Your task to perform on an android device: turn off improve location accuracy Image 0: 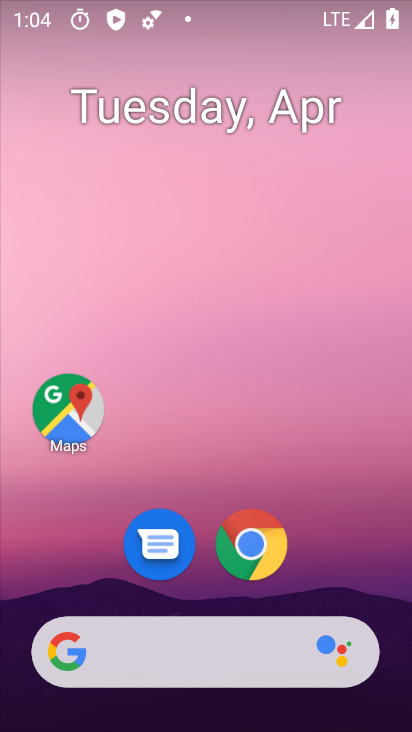
Step 0: drag from (363, 544) to (363, 56)
Your task to perform on an android device: turn off improve location accuracy Image 1: 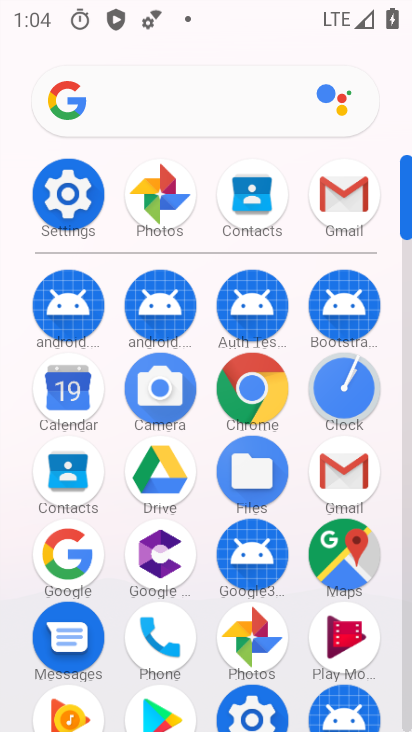
Step 1: click (71, 172)
Your task to perform on an android device: turn off improve location accuracy Image 2: 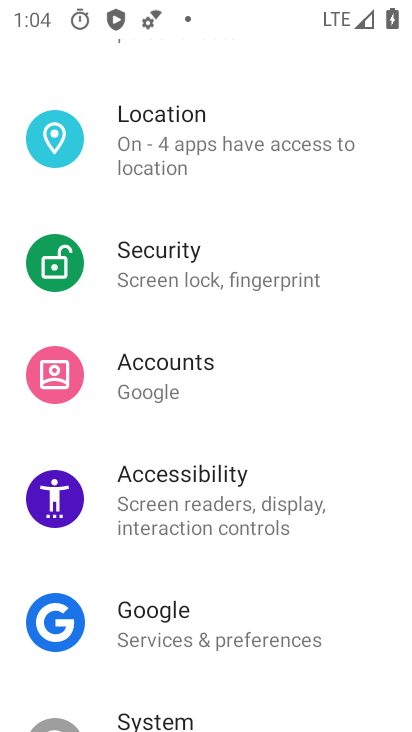
Step 2: click (176, 155)
Your task to perform on an android device: turn off improve location accuracy Image 3: 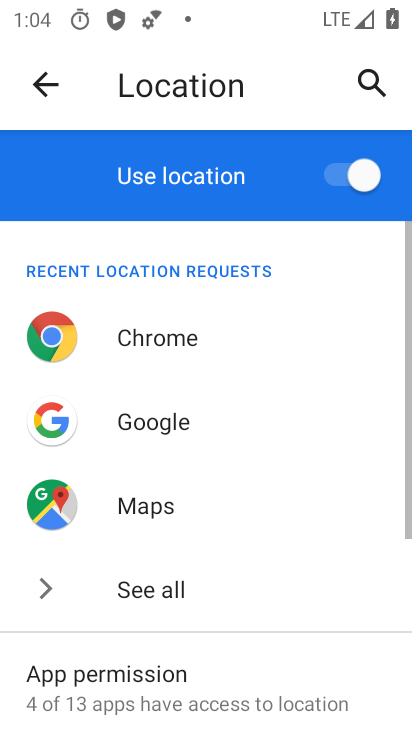
Step 3: drag from (281, 558) to (275, 254)
Your task to perform on an android device: turn off improve location accuracy Image 4: 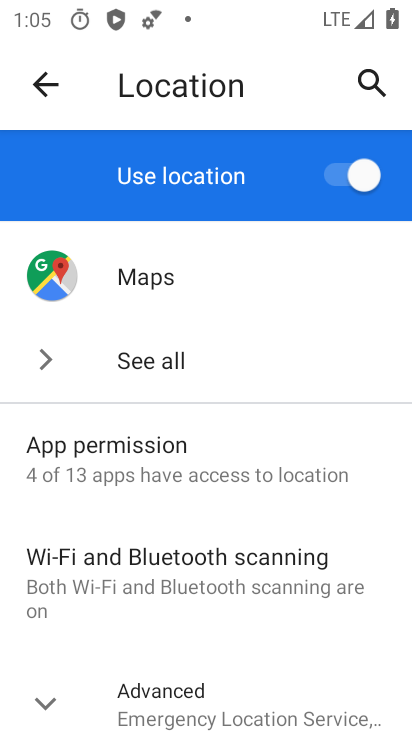
Step 4: drag from (214, 538) to (207, 285)
Your task to perform on an android device: turn off improve location accuracy Image 5: 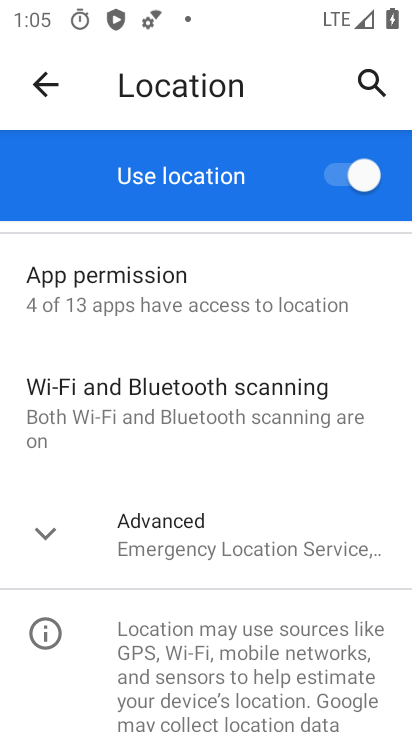
Step 5: click (42, 539)
Your task to perform on an android device: turn off improve location accuracy Image 6: 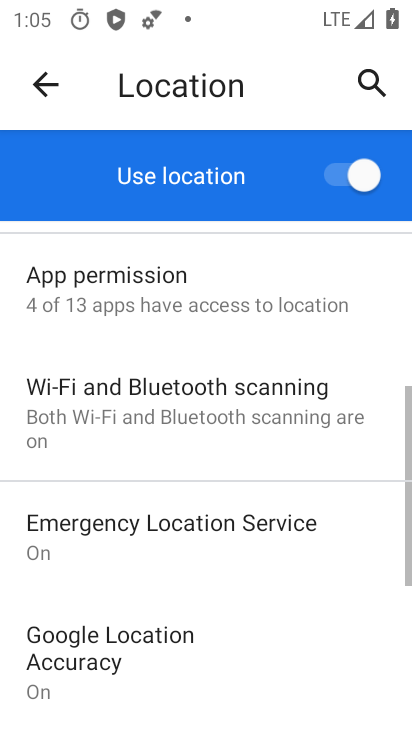
Step 6: drag from (229, 596) to (229, 335)
Your task to perform on an android device: turn off improve location accuracy Image 7: 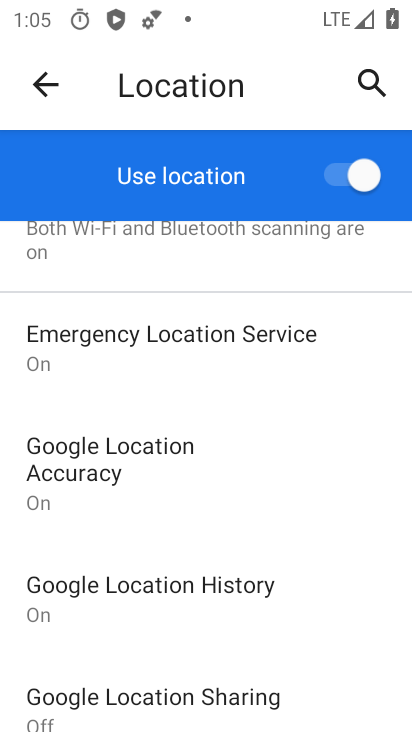
Step 7: click (81, 472)
Your task to perform on an android device: turn off improve location accuracy Image 8: 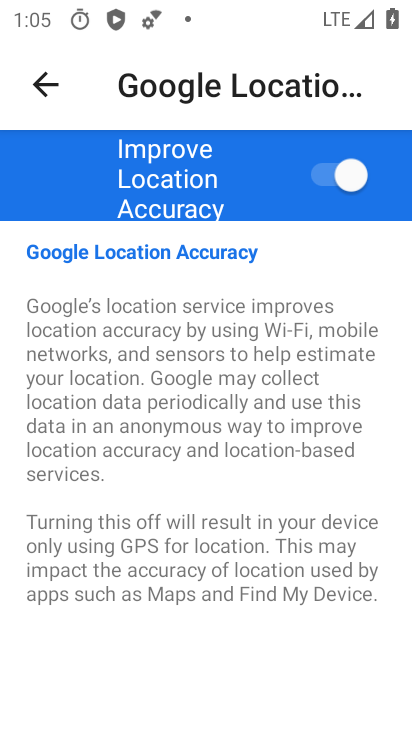
Step 8: click (346, 185)
Your task to perform on an android device: turn off improve location accuracy Image 9: 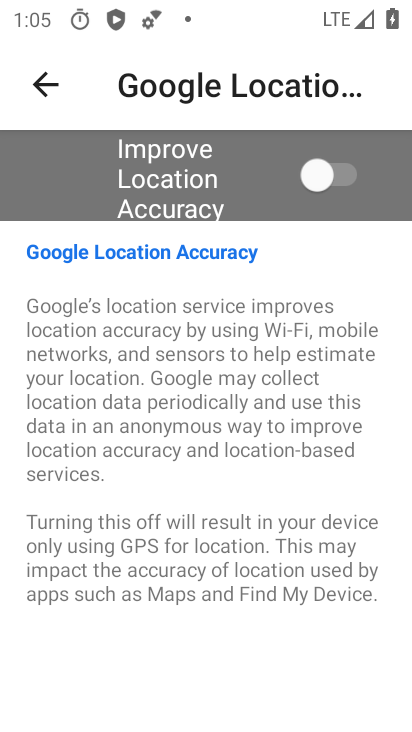
Step 9: task complete